Your task to perform on an android device: Go to display settings Image 0: 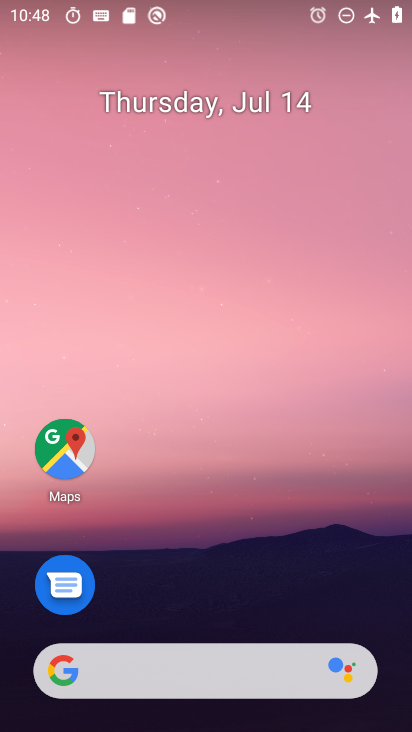
Step 0: drag from (245, 625) to (59, 3)
Your task to perform on an android device: Go to display settings Image 1: 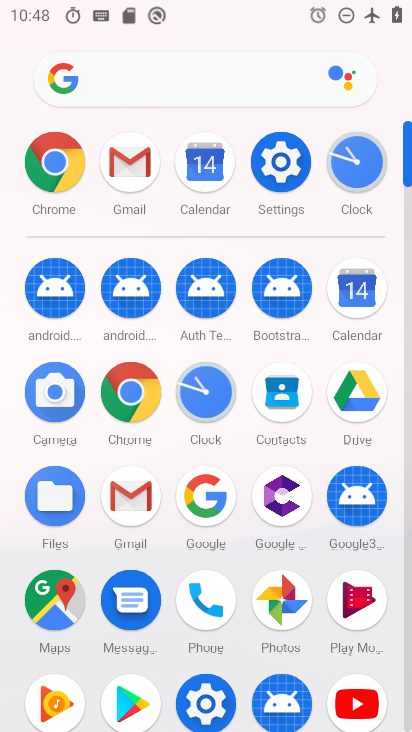
Step 1: click (287, 160)
Your task to perform on an android device: Go to display settings Image 2: 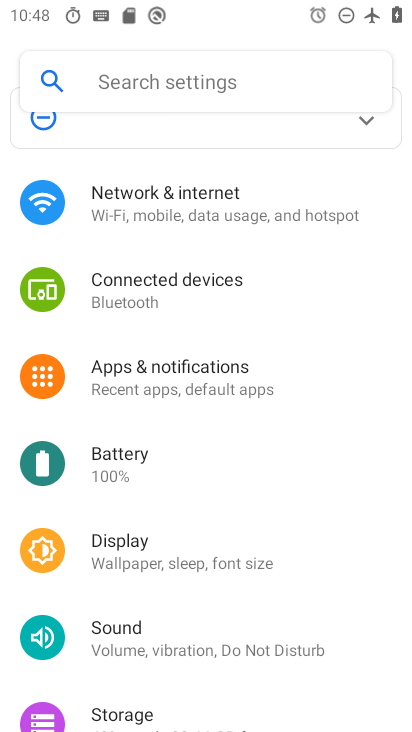
Step 2: click (212, 539)
Your task to perform on an android device: Go to display settings Image 3: 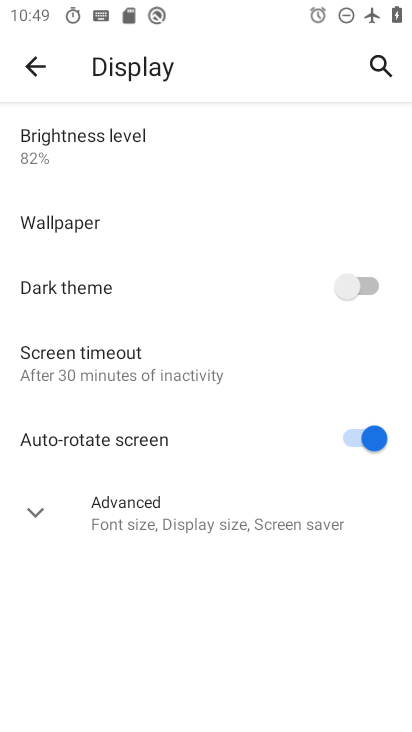
Step 3: task complete